Your task to perform on an android device: Open settings Image 0: 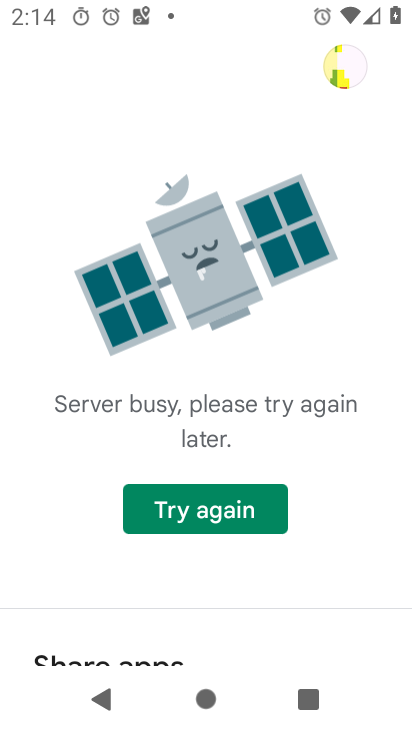
Step 0: press home button
Your task to perform on an android device: Open settings Image 1: 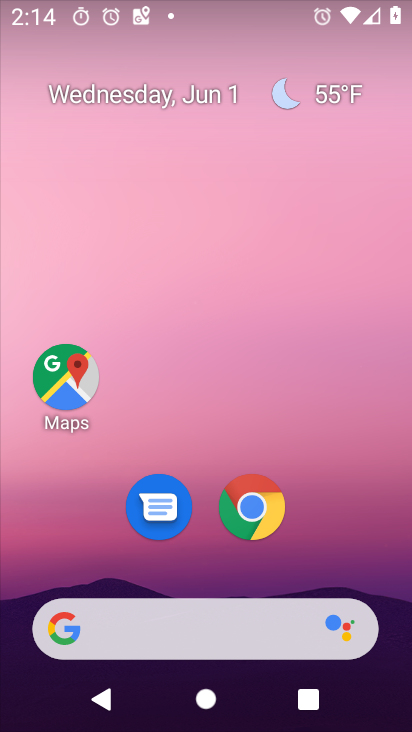
Step 1: drag from (332, 593) to (255, 0)
Your task to perform on an android device: Open settings Image 2: 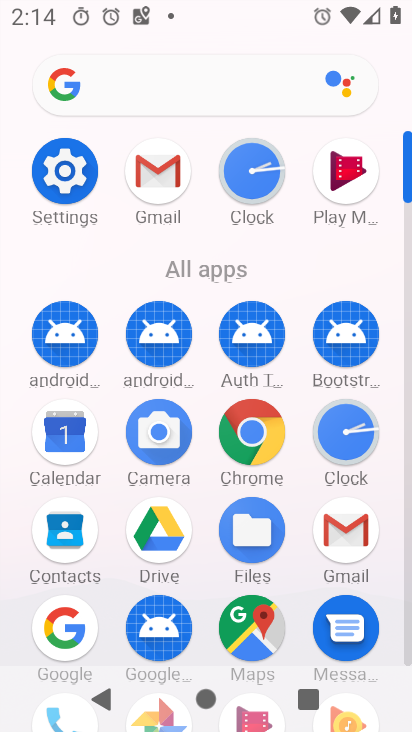
Step 2: click (73, 175)
Your task to perform on an android device: Open settings Image 3: 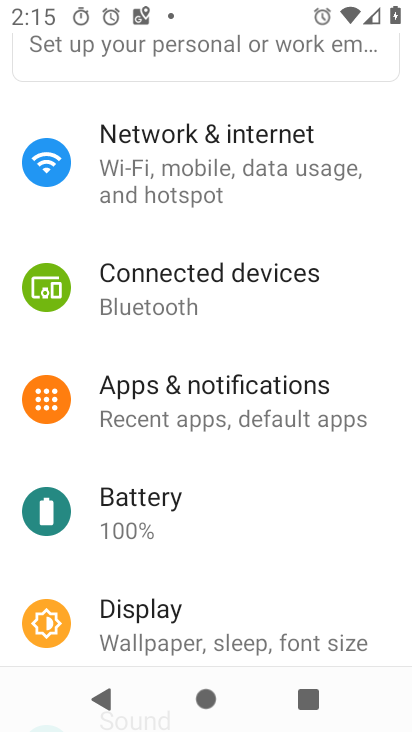
Step 3: task complete